Your task to perform on an android device: Toggle the flashlight Image 0: 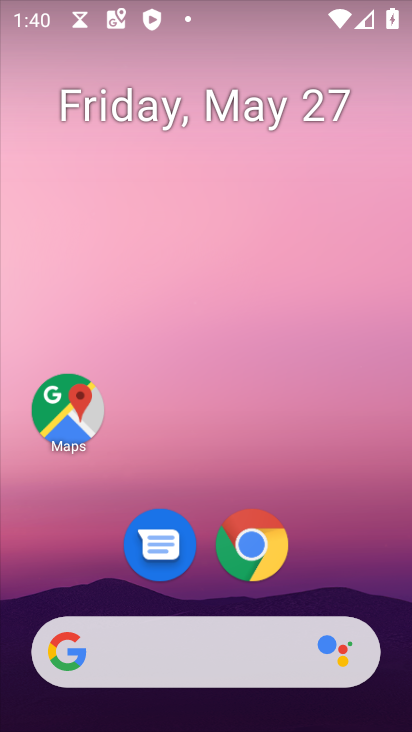
Step 0: drag from (244, 11) to (227, 575)
Your task to perform on an android device: Toggle the flashlight Image 1: 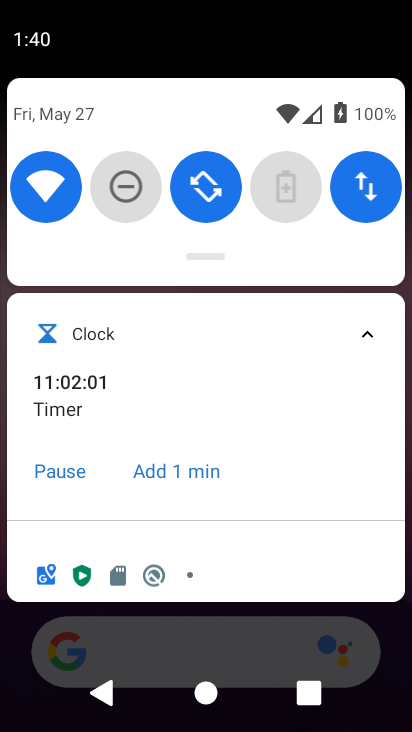
Step 1: task complete